Your task to perform on an android device: turn off data saver in the chrome app Image 0: 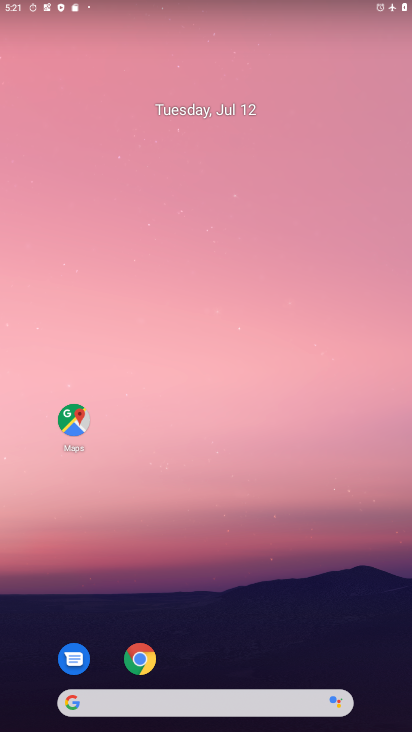
Step 0: click (143, 655)
Your task to perform on an android device: turn off data saver in the chrome app Image 1: 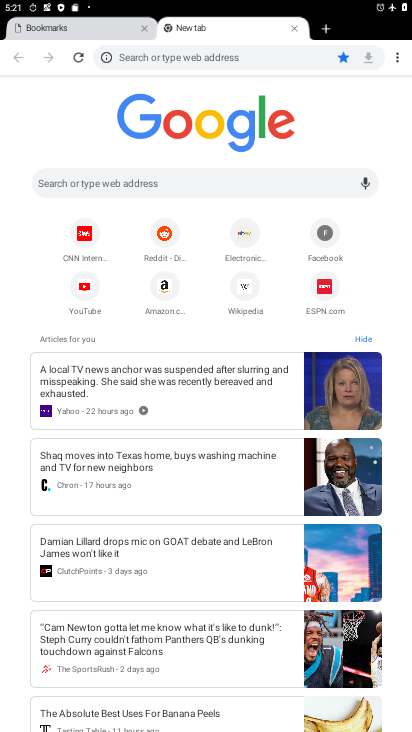
Step 1: click (399, 50)
Your task to perform on an android device: turn off data saver in the chrome app Image 2: 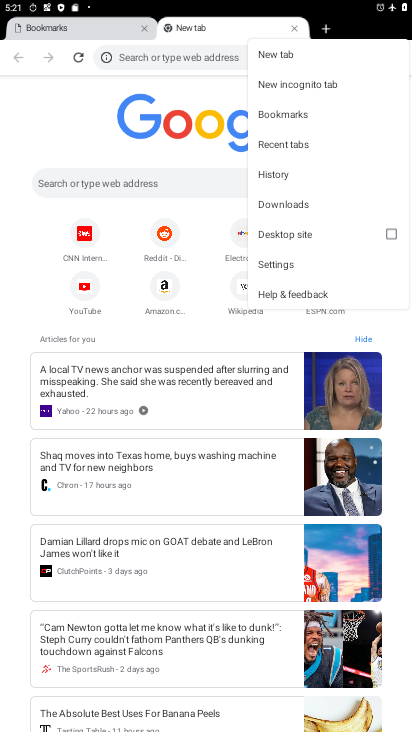
Step 2: click (280, 264)
Your task to perform on an android device: turn off data saver in the chrome app Image 3: 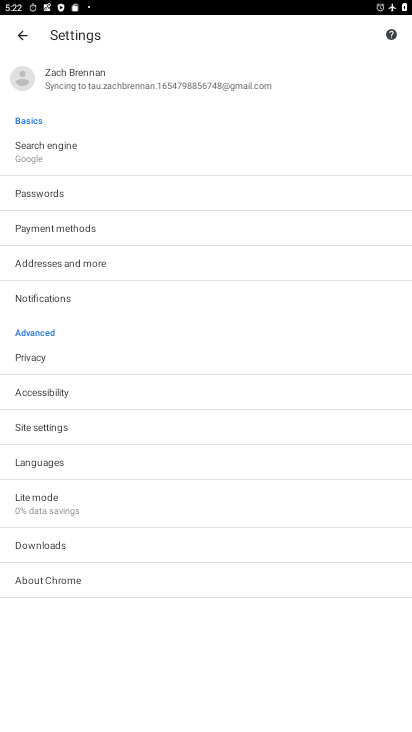
Step 3: click (46, 511)
Your task to perform on an android device: turn off data saver in the chrome app Image 4: 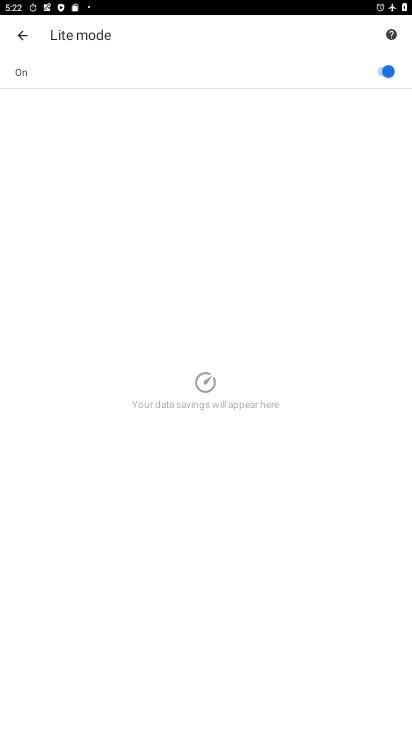
Step 4: click (383, 70)
Your task to perform on an android device: turn off data saver in the chrome app Image 5: 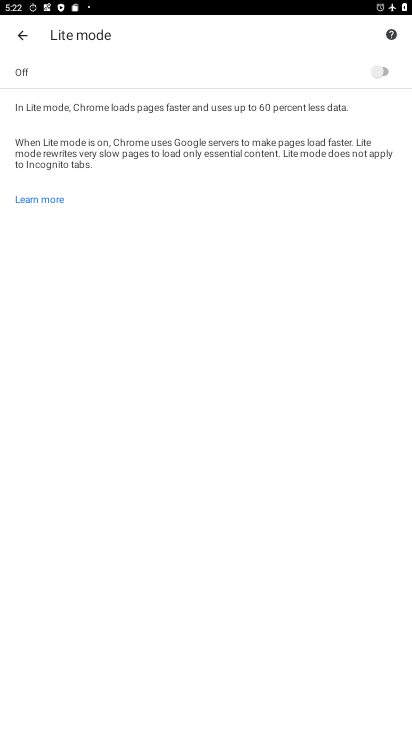
Step 5: task complete